Your task to perform on an android device: set default search engine in the chrome app Image 0: 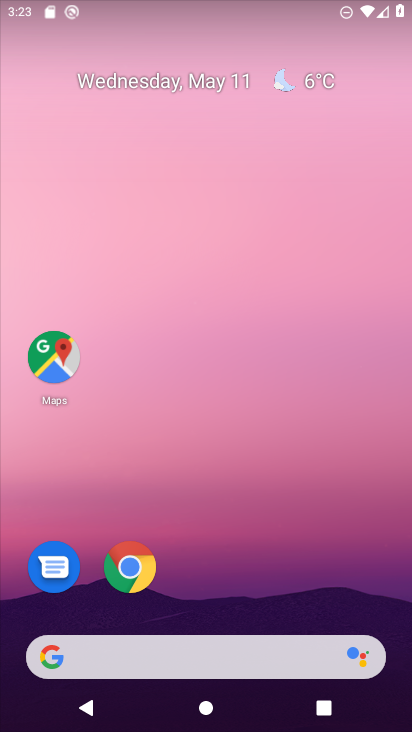
Step 0: click (123, 571)
Your task to perform on an android device: set default search engine in the chrome app Image 1: 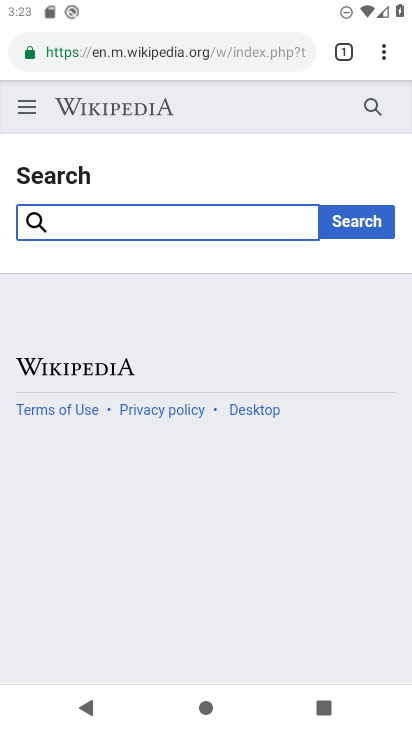
Step 1: click (395, 49)
Your task to perform on an android device: set default search engine in the chrome app Image 2: 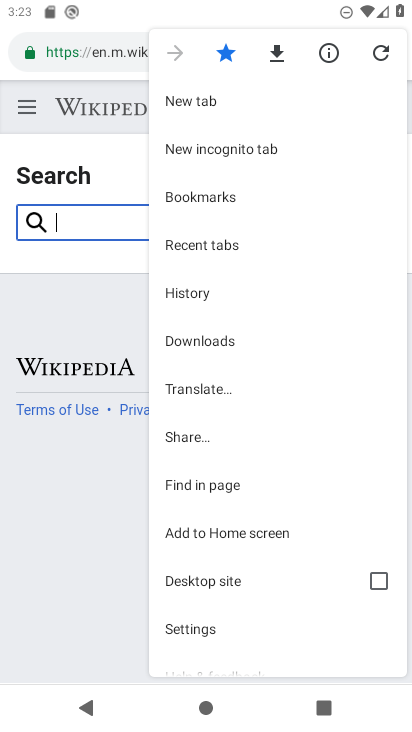
Step 2: click (213, 634)
Your task to perform on an android device: set default search engine in the chrome app Image 3: 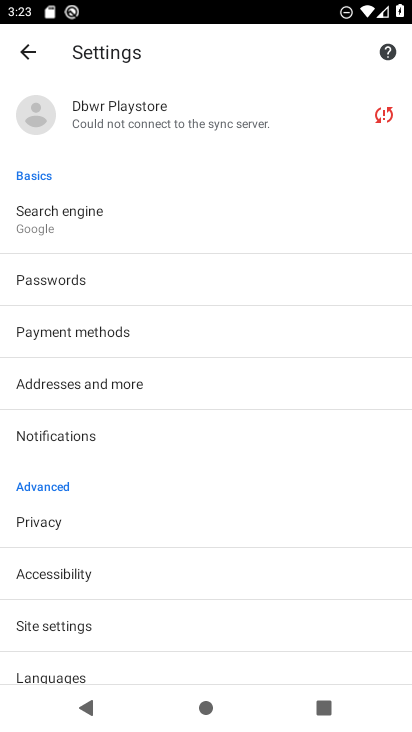
Step 3: click (104, 232)
Your task to perform on an android device: set default search engine in the chrome app Image 4: 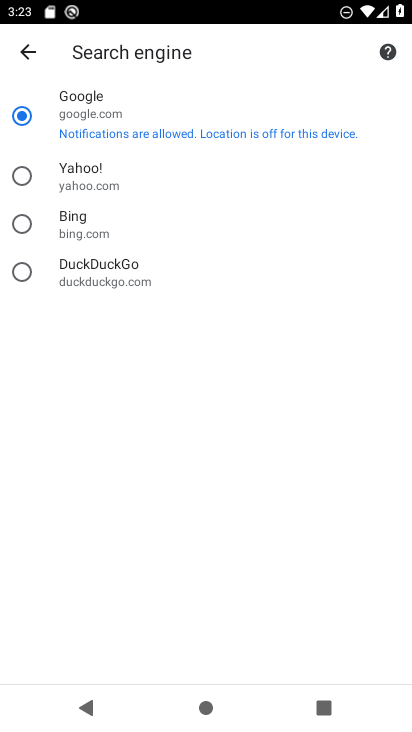
Step 4: click (100, 285)
Your task to perform on an android device: set default search engine in the chrome app Image 5: 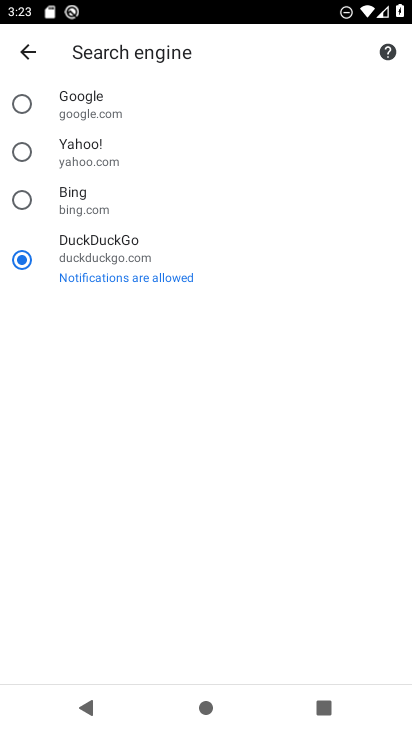
Step 5: task complete